Your task to perform on an android device: change the upload size in google photos Image 0: 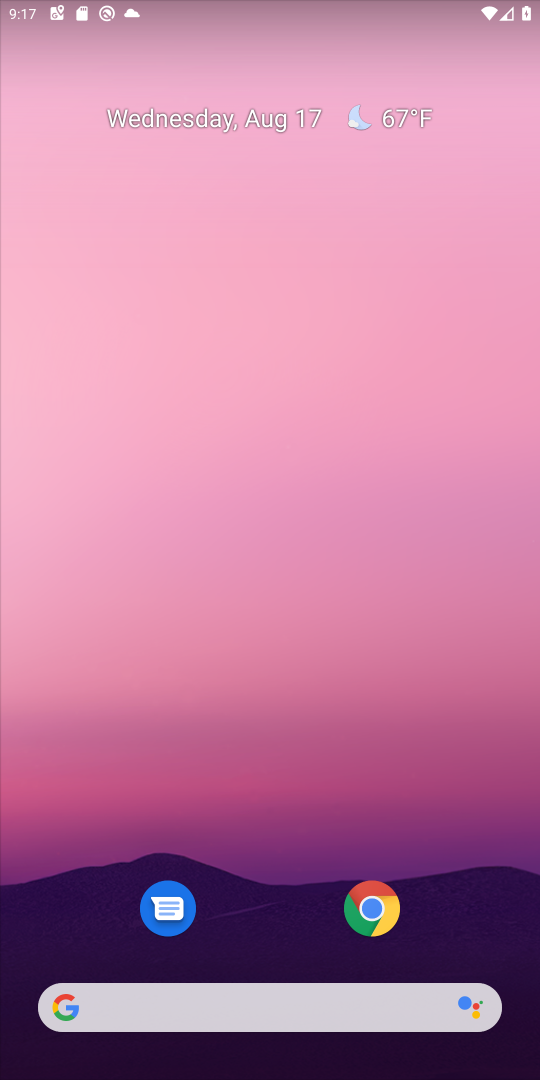
Step 0: drag from (273, 910) to (329, 40)
Your task to perform on an android device: change the upload size in google photos Image 1: 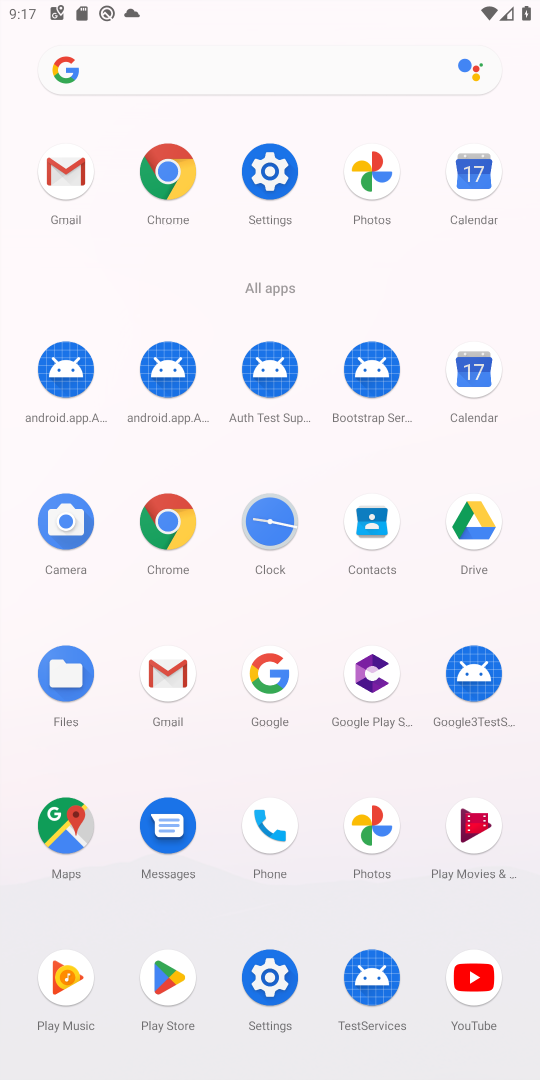
Step 1: click (360, 825)
Your task to perform on an android device: change the upload size in google photos Image 2: 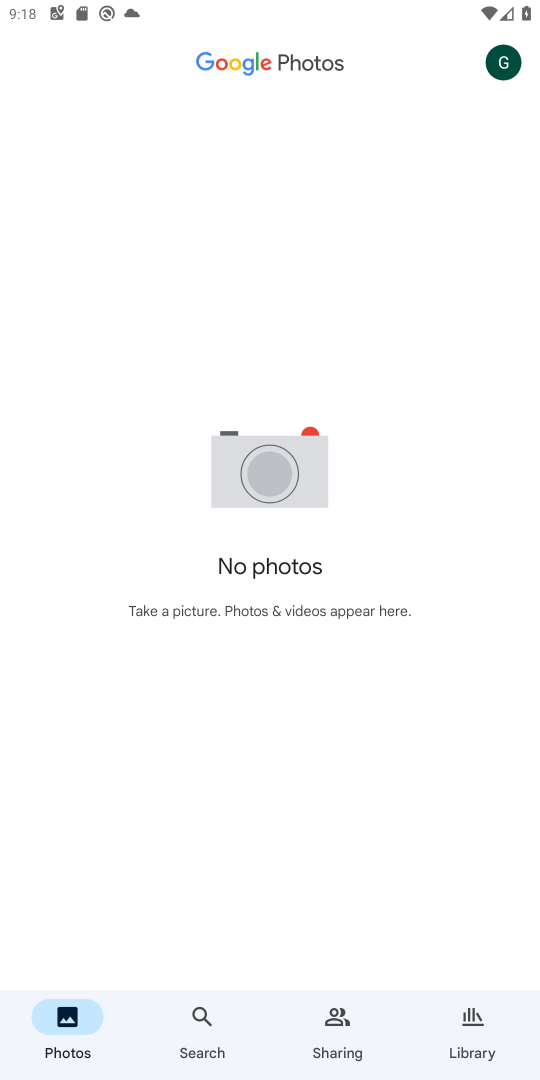
Step 2: click (502, 60)
Your task to perform on an android device: change the upload size in google photos Image 3: 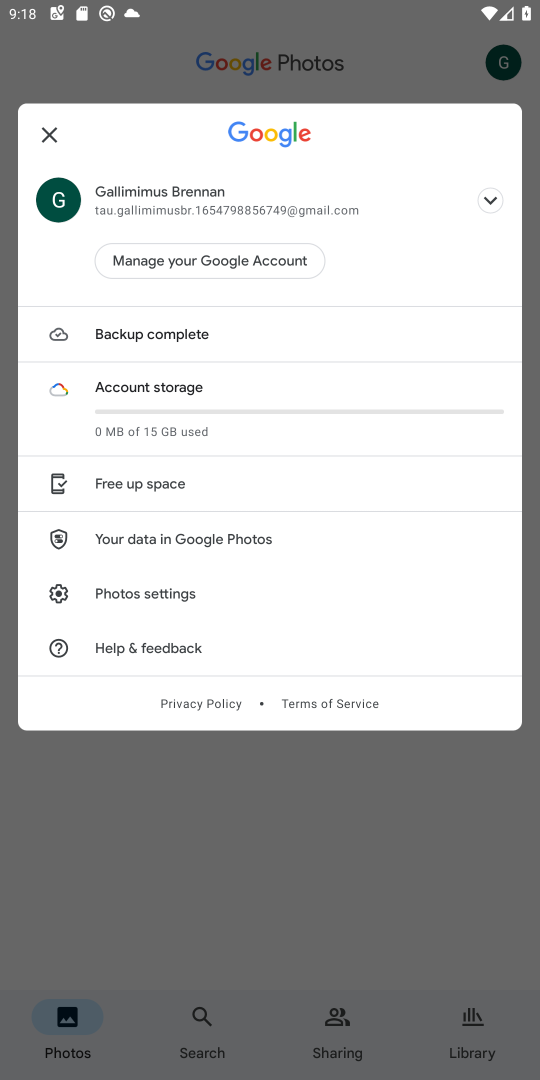
Step 3: click (137, 587)
Your task to perform on an android device: change the upload size in google photos Image 4: 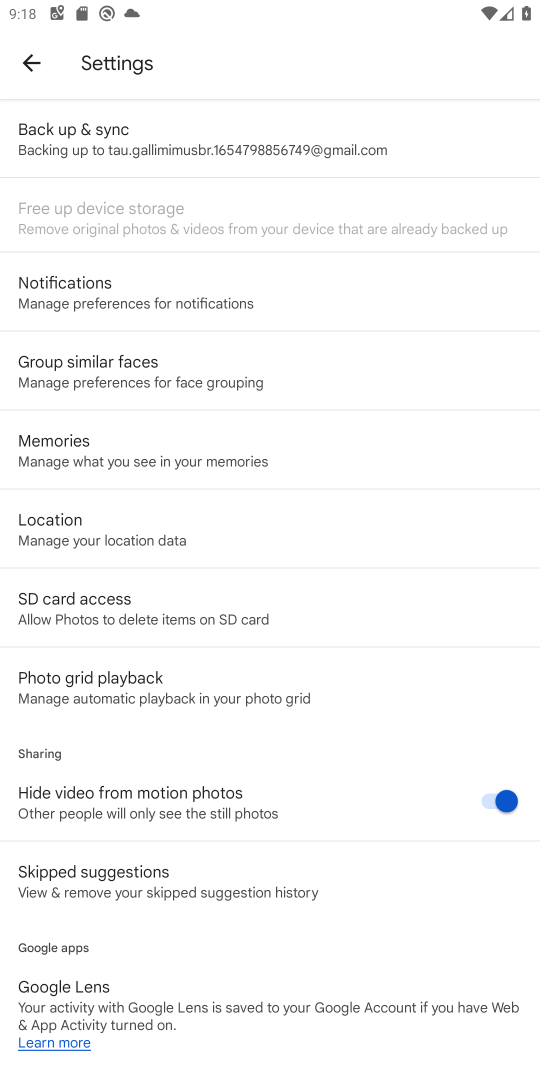
Step 4: drag from (121, 871) to (147, 413)
Your task to perform on an android device: change the upload size in google photos Image 5: 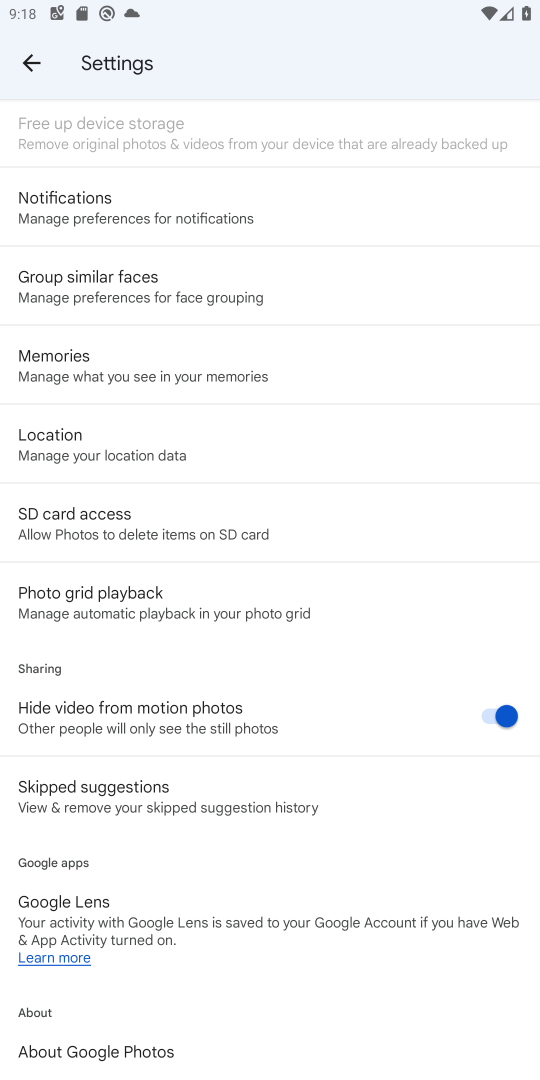
Step 5: drag from (229, 192) to (200, 874)
Your task to perform on an android device: change the upload size in google photos Image 6: 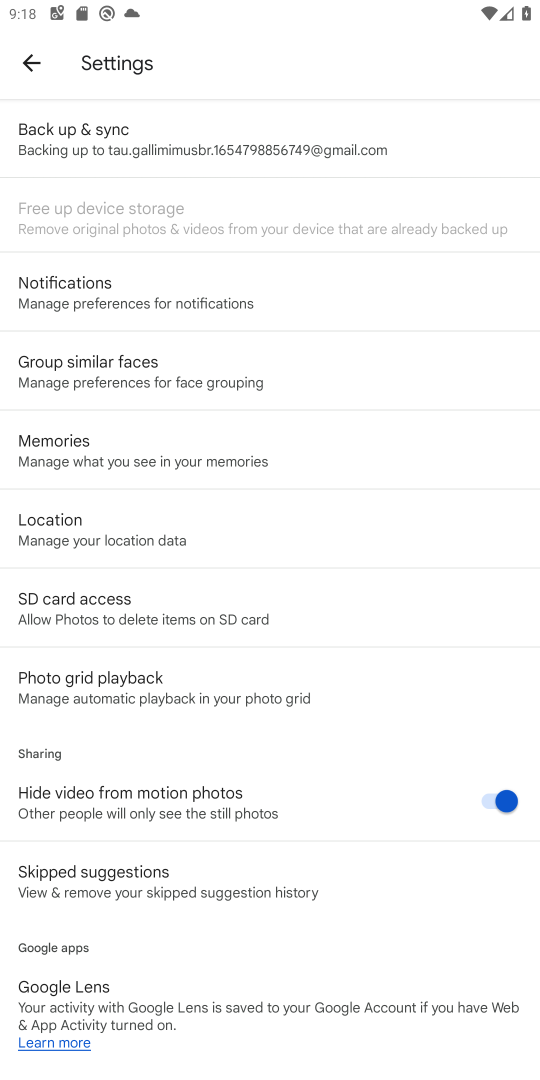
Step 6: click (75, 132)
Your task to perform on an android device: change the upload size in google photos Image 7: 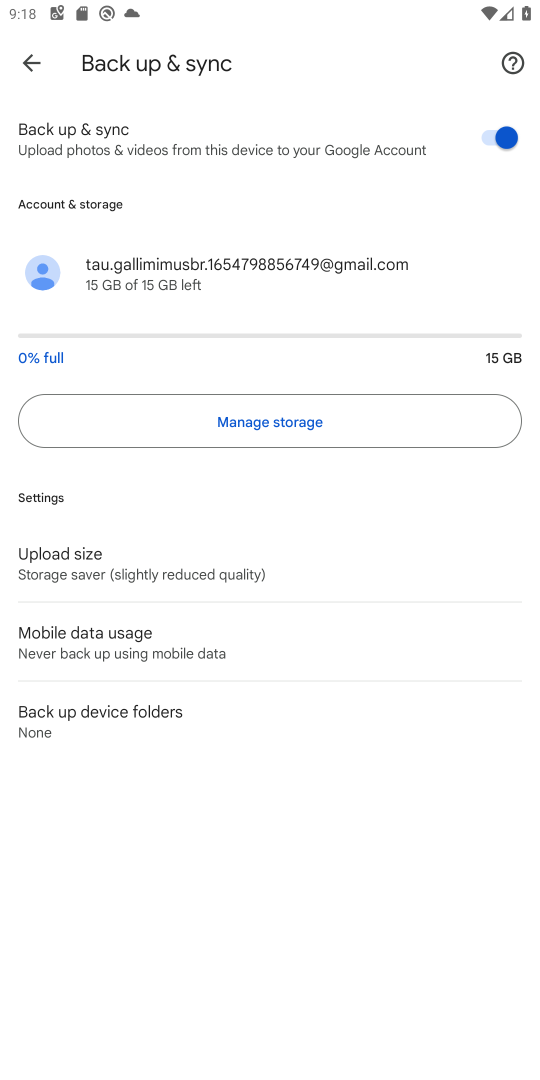
Step 7: click (87, 576)
Your task to perform on an android device: change the upload size in google photos Image 8: 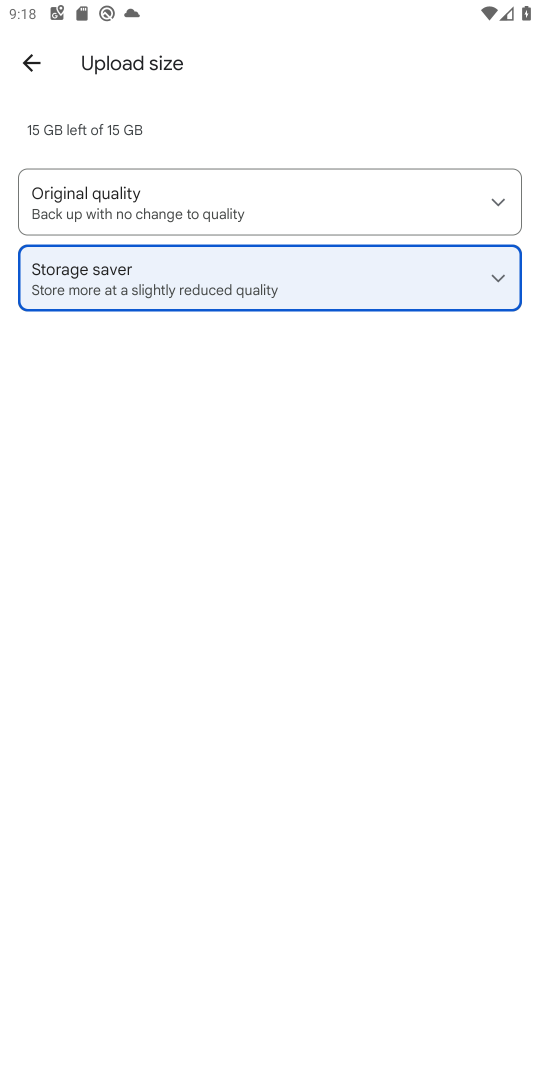
Step 8: click (130, 214)
Your task to perform on an android device: change the upload size in google photos Image 9: 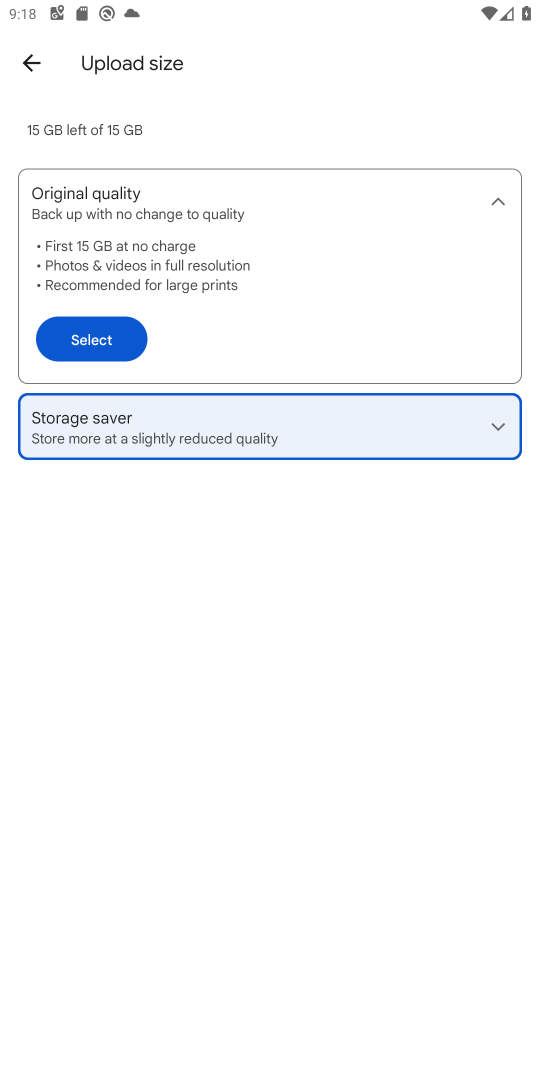
Step 9: click (98, 331)
Your task to perform on an android device: change the upload size in google photos Image 10: 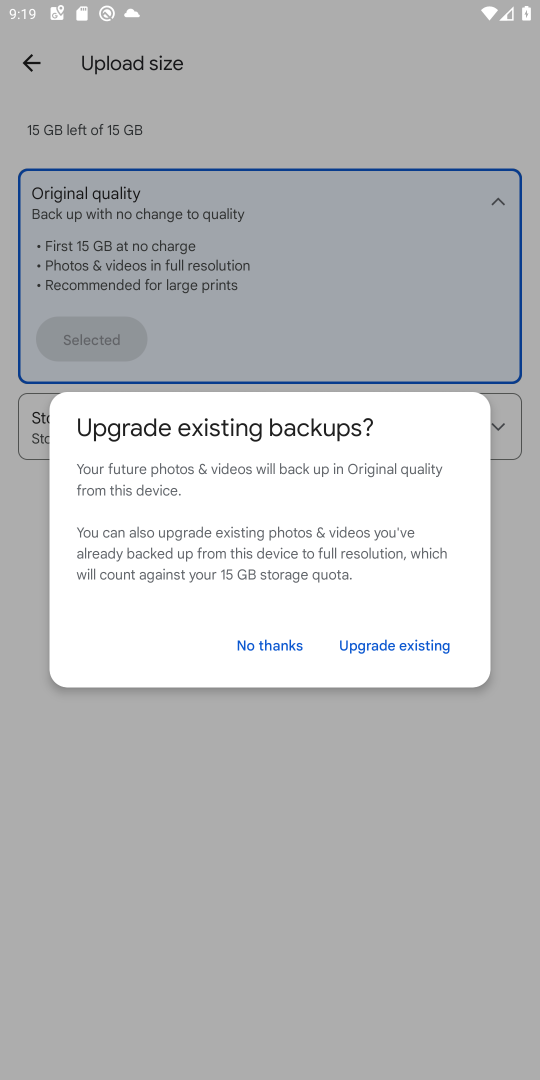
Step 10: click (376, 643)
Your task to perform on an android device: change the upload size in google photos Image 11: 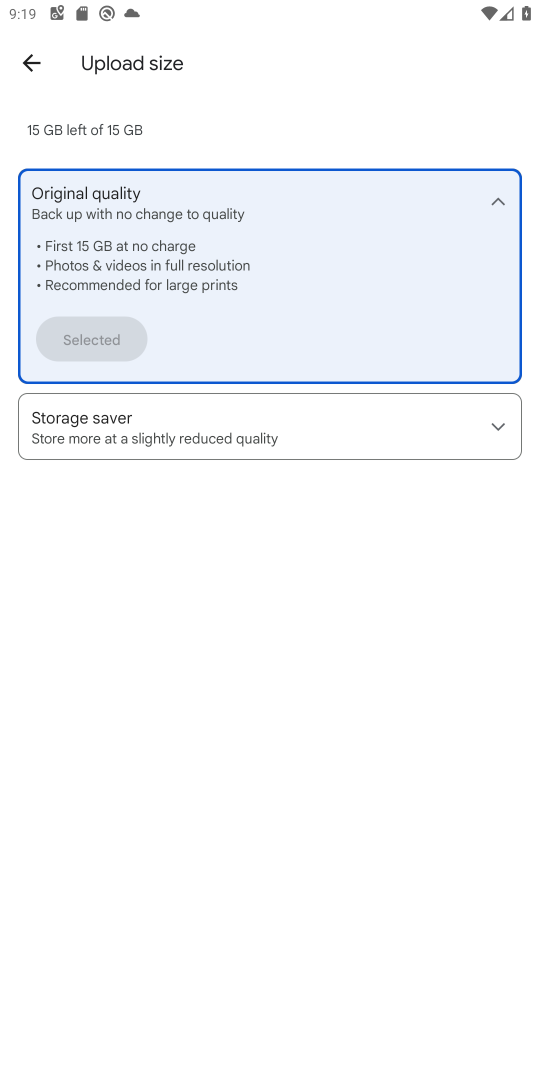
Step 11: task complete